Your task to perform on an android device: toggle javascript in the chrome app Image 0: 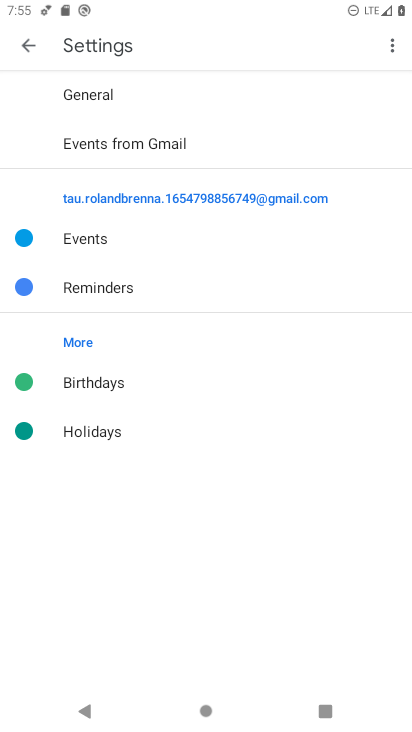
Step 0: press home button
Your task to perform on an android device: toggle javascript in the chrome app Image 1: 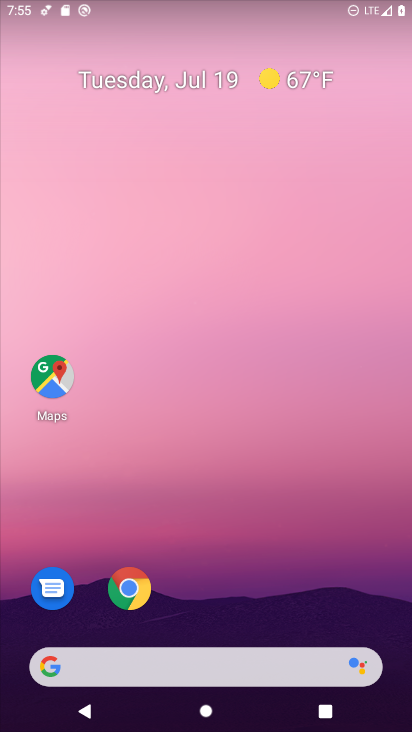
Step 1: drag from (306, 568) to (362, 52)
Your task to perform on an android device: toggle javascript in the chrome app Image 2: 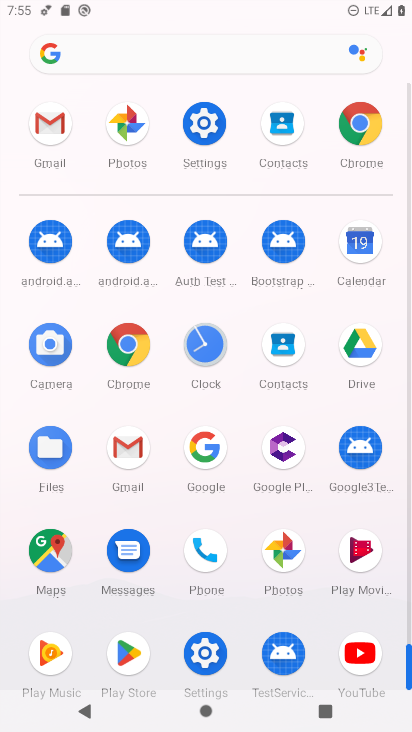
Step 2: click (367, 142)
Your task to perform on an android device: toggle javascript in the chrome app Image 3: 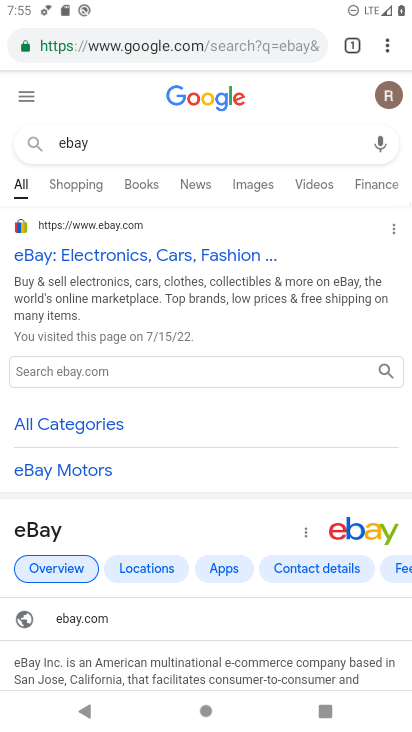
Step 3: click (387, 48)
Your task to perform on an android device: toggle javascript in the chrome app Image 4: 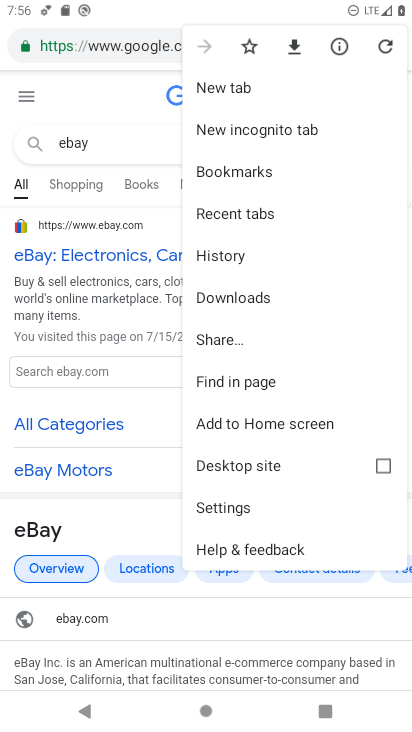
Step 4: click (276, 504)
Your task to perform on an android device: toggle javascript in the chrome app Image 5: 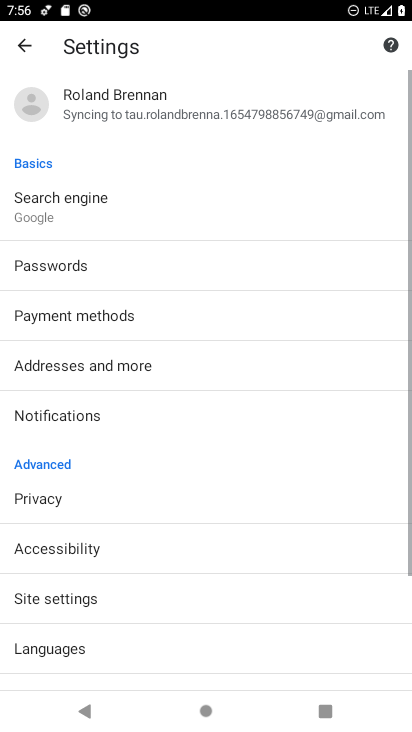
Step 5: drag from (323, 482) to (338, 418)
Your task to perform on an android device: toggle javascript in the chrome app Image 6: 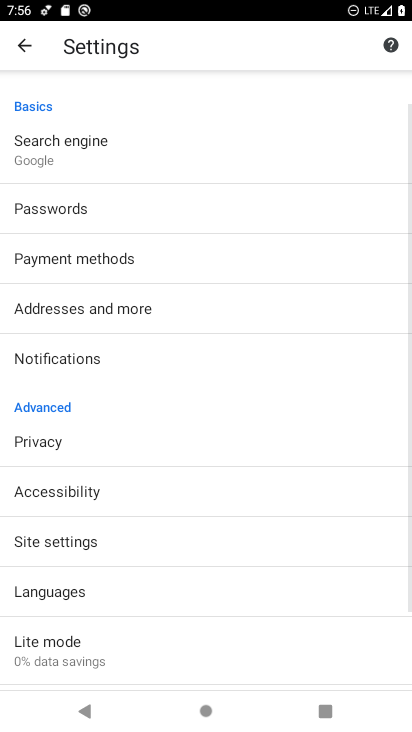
Step 6: drag from (309, 497) to (314, 449)
Your task to perform on an android device: toggle javascript in the chrome app Image 7: 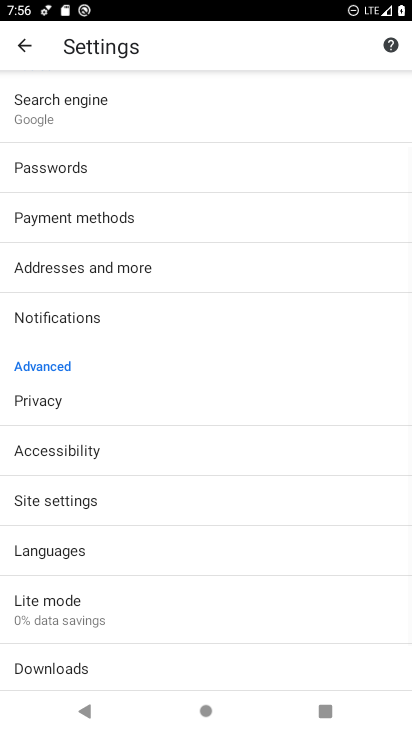
Step 7: drag from (316, 496) to (327, 420)
Your task to perform on an android device: toggle javascript in the chrome app Image 8: 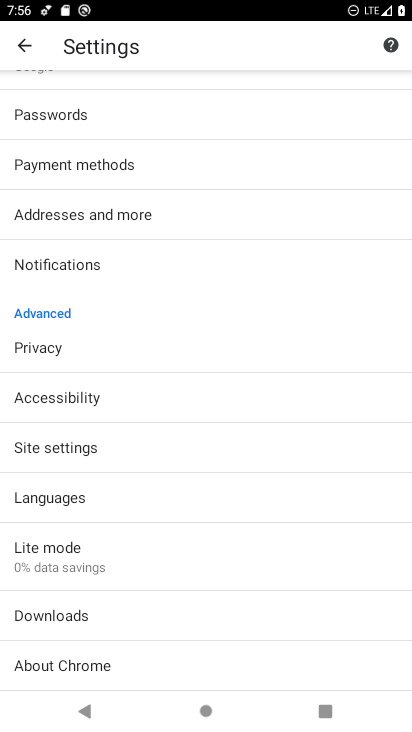
Step 8: click (328, 444)
Your task to perform on an android device: toggle javascript in the chrome app Image 9: 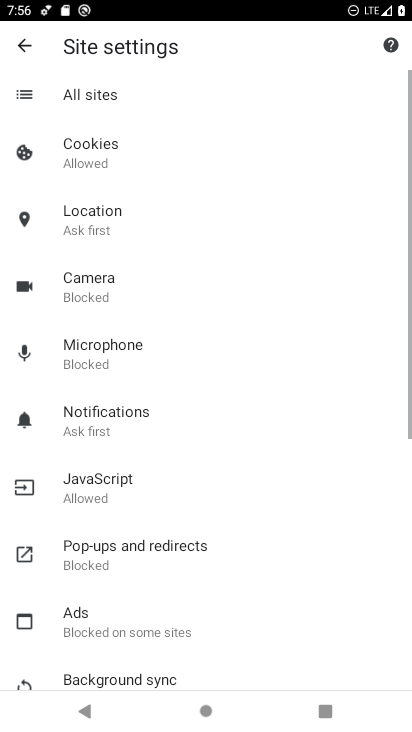
Step 9: drag from (332, 500) to (335, 438)
Your task to perform on an android device: toggle javascript in the chrome app Image 10: 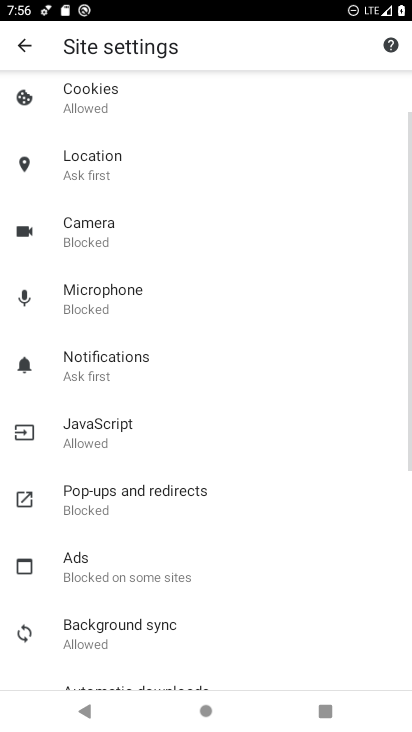
Step 10: drag from (342, 526) to (344, 460)
Your task to perform on an android device: toggle javascript in the chrome app Image 11: 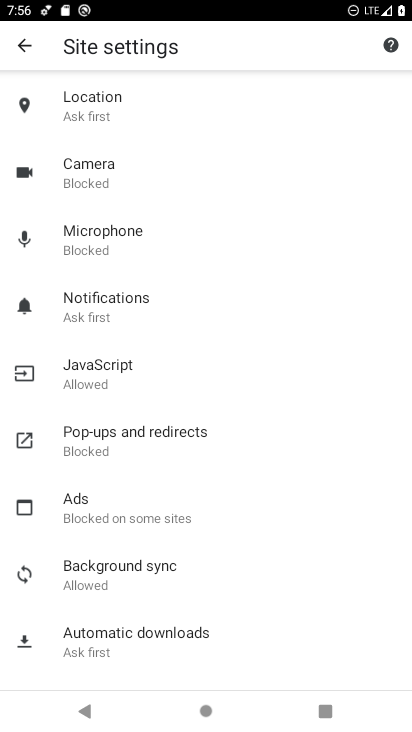
Step 11: drag from (346, 544) to (347, 445)
Your task to perform on an android device: toggle javascript in the chrome app Image 12: 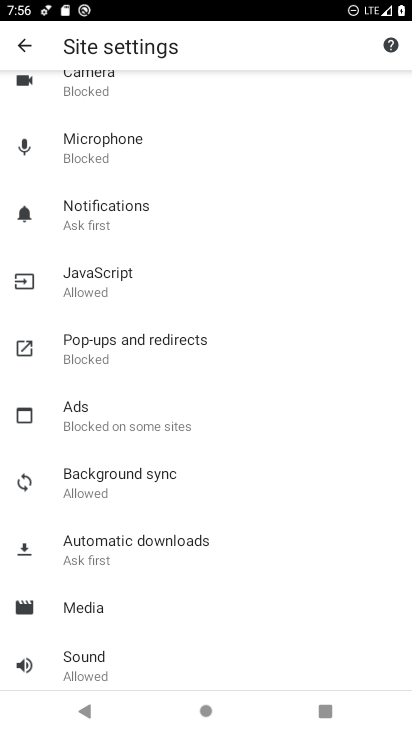
Step 12: drag from (346, 494) to (347, 414)
Your task to perform on an android device: toggle javascript in the chrome app Image 13: 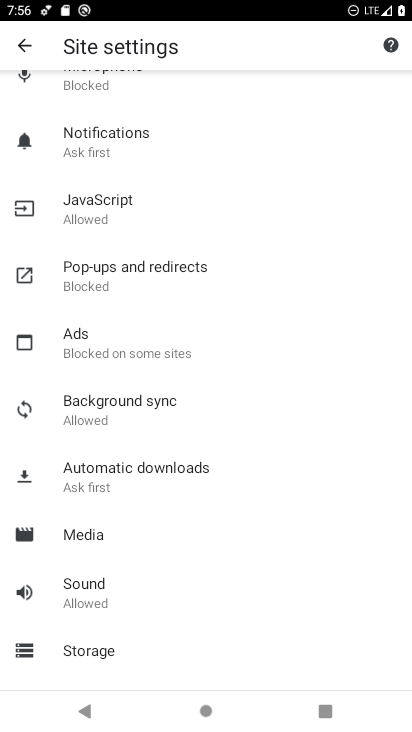
Step 13: drag from (329, 272) to (332, 344)
Your task to perform on an android device: toggle javascript in the chrome app Image 14: 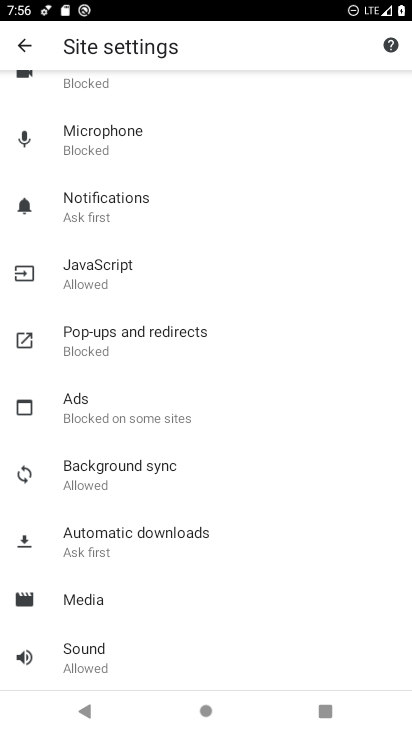
Step 14: drag from (335, 273) to (335, 355)
Your task to perform on an android device: toggle javascript in the chrome app Image 15: 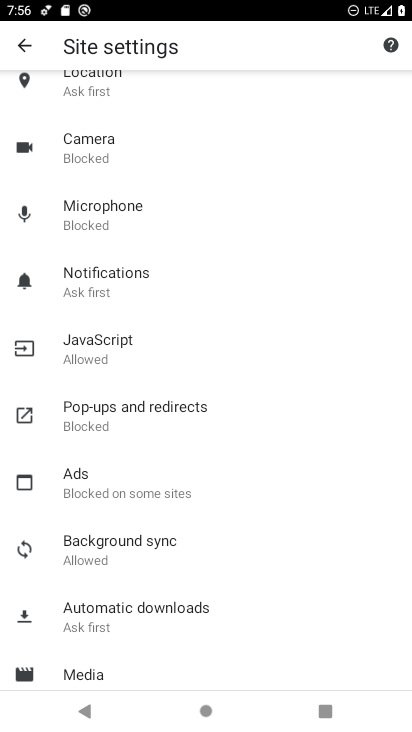
Step 15: click (206, 354)
Your task to perform on an android device: toggle javascript in the chrome app Image 16: 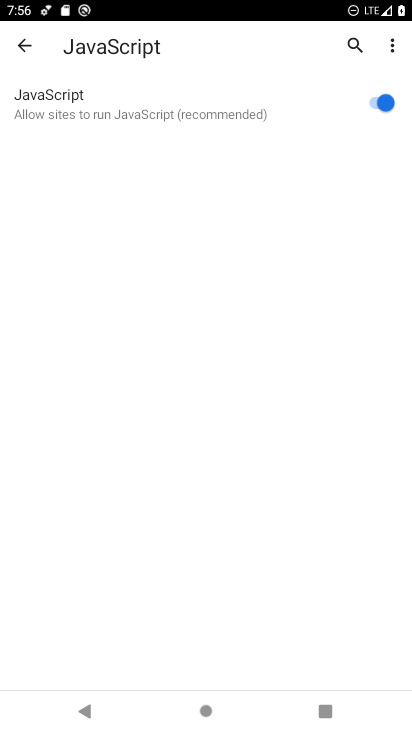
Step 16: click (389, 107)
Your task to perform on an android device: toggle javascript in the chrome app Image 17: 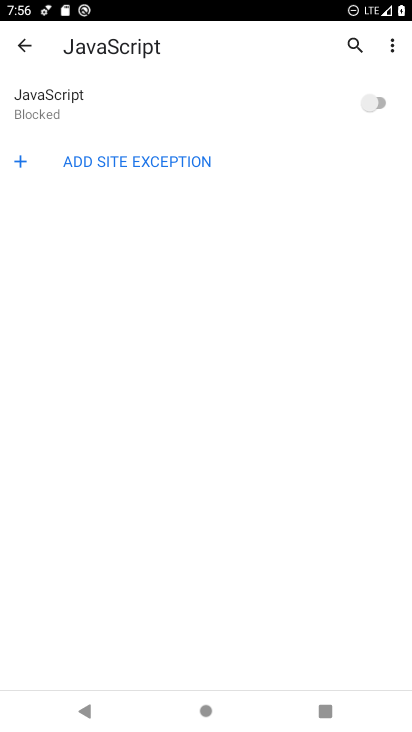
Step 17: task complete